Your task to perform on an android device: Open the phone app and click the voicemail tab. Image 0: 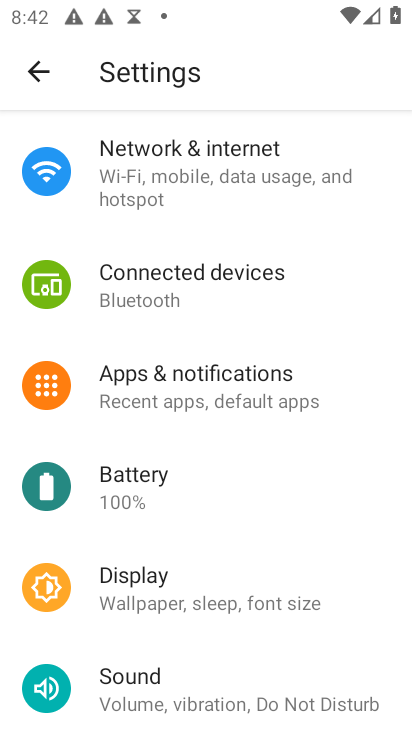
Step 0: press home button
Your task to perform on an android device: Open the phone app and click the voicemail tab. Image 1: 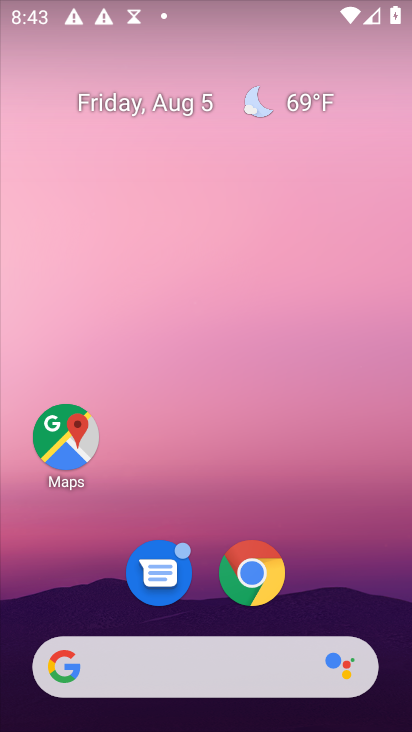
Step 1: drag from (178, 672) to (182, 148)
Your task to perform on an android device: Open the phone app and click the voicemail tab. Image 2: 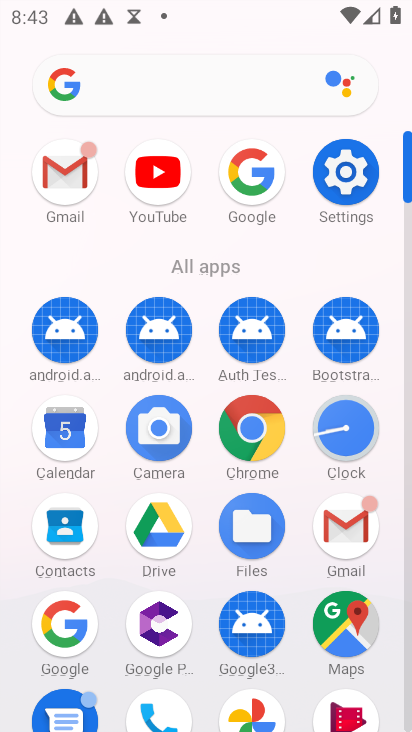
Step 2: drag from (204, 582) to (208, 358)
Your task to perform on an android device: Open the phone app and click the voicemail tab. Image 3: 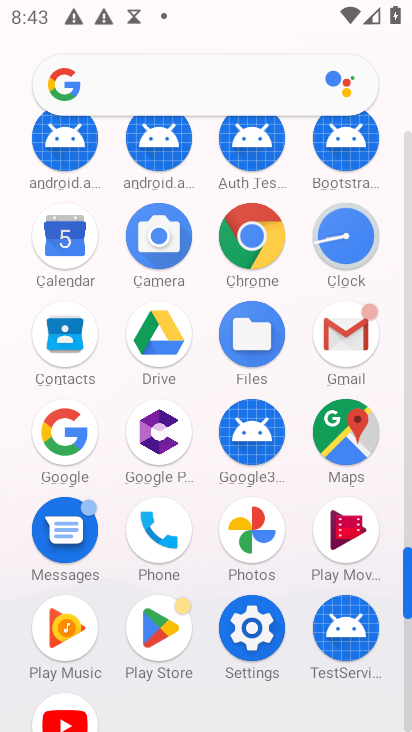
Step 3: click (156, 536)
Your task to perform on an android device: Open the phone app and click the voicemail tab. Image 4: 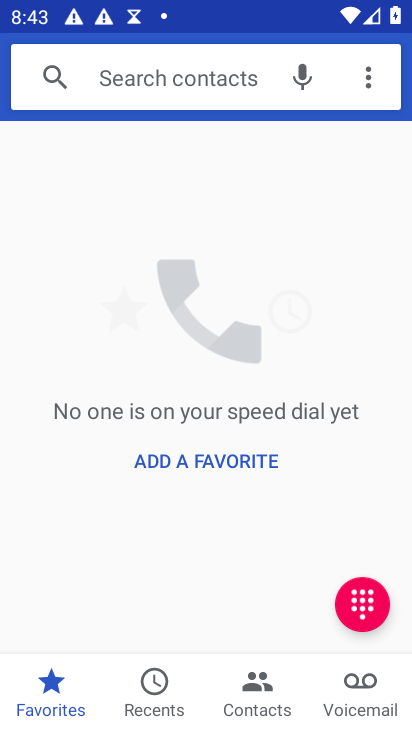
Step 4: click (358, 683)
Your task to perform on an android device: Open the phone app and click the voicemail tab. Image 5: 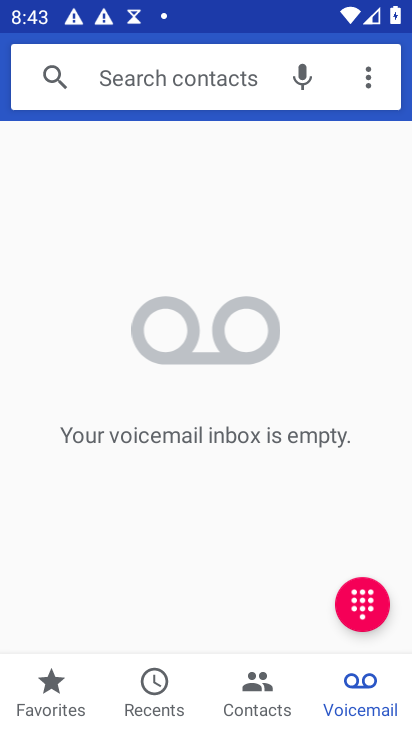
Step 5: task complete